Your task to perform on an android device: show emergency info Image 0: 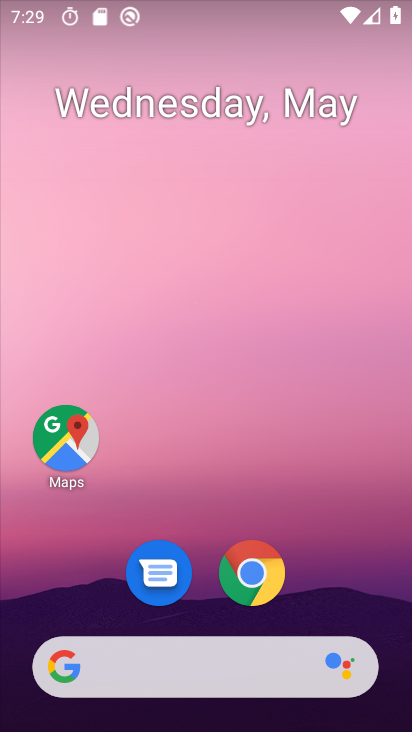
Step 0: drag from (197, 599) to (239, 17)
Your task to perform on an android device: show emergency info Image 1: 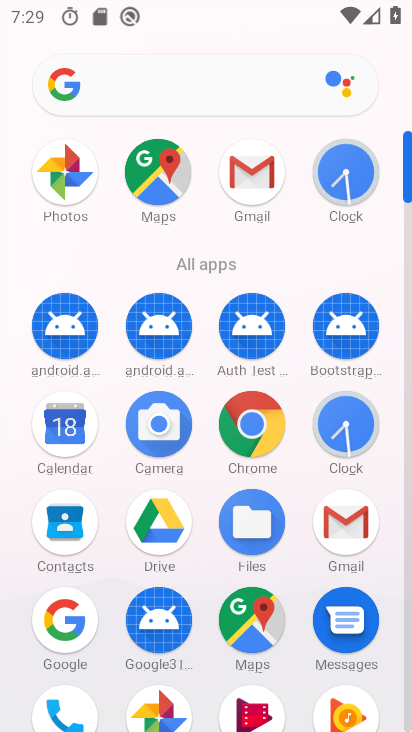
Step 1: drag from (121, 580) to (182, 155)
Your task to perform on an android device: show emergency info Image 2: 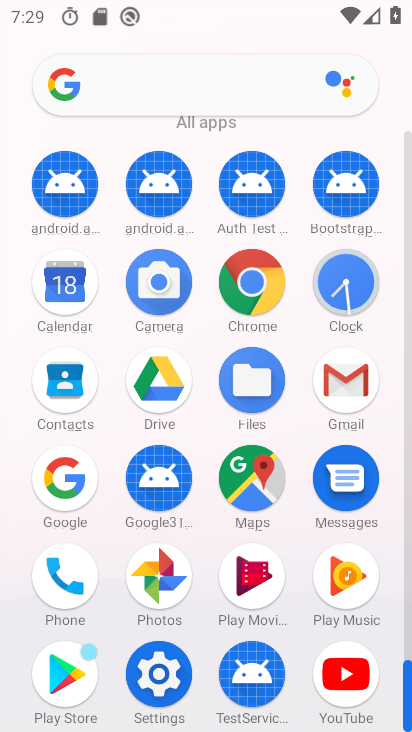
Step 2: click (155, 666)
Your task to perform on an android device: show emergency info Image 3: 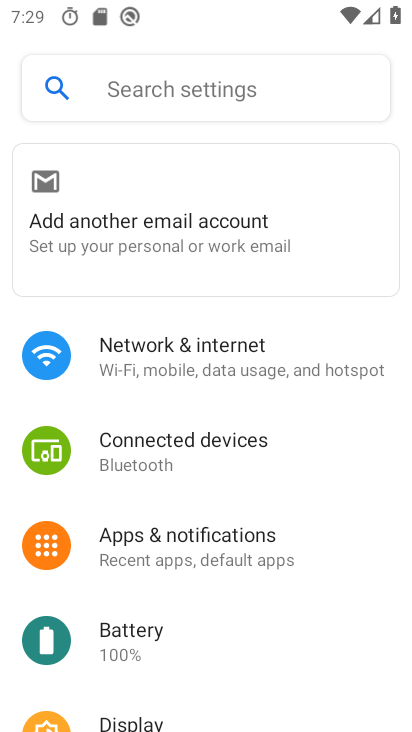
Step 3: drag from (179, 616) to (255, 17)
Your task to perform on an android device: show emergency info Image 4: 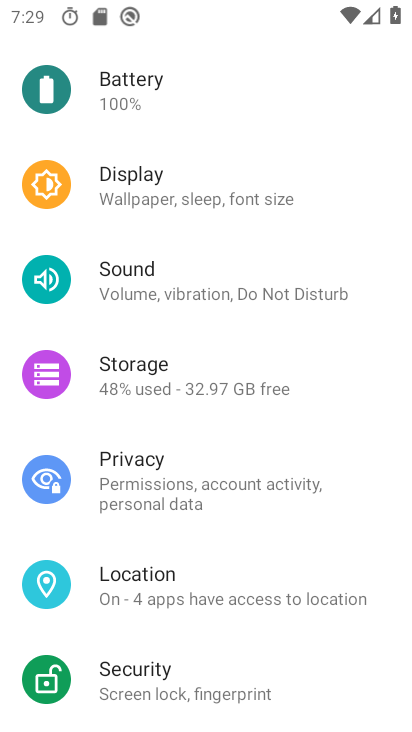
Step 4: drag from (157, 615) to (228, 125)
Your task to perform on an android device: show emergency info Image 5: 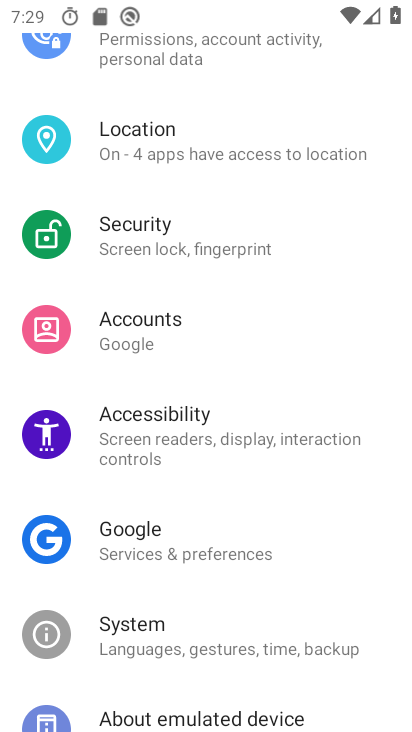
Step 5: drag from (295, 606) to (331, 242)
Your task to perform on an android device: show emergency info Image 6: 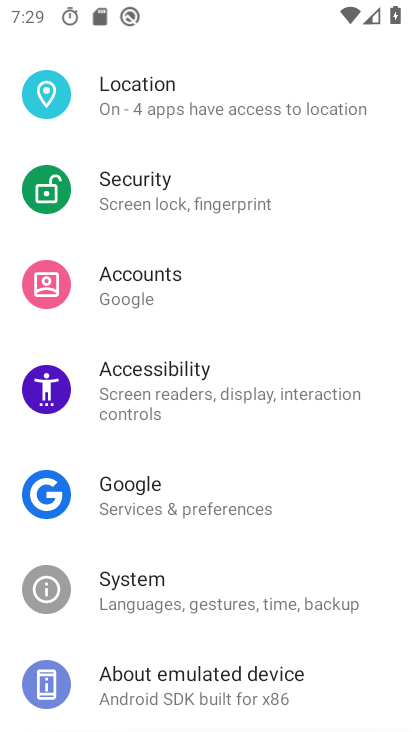
Step 6: click (144, 692)
Your task to perform on an android device: show emergency info Image 7: 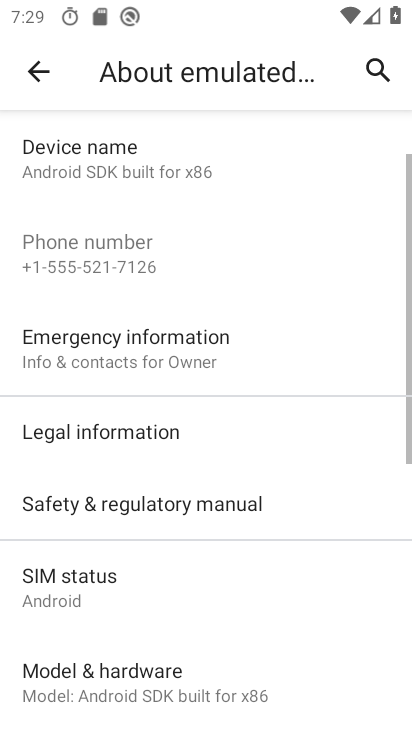
Step 7: click (151, 334)
Your task to perform on an android device: show emergency info Image 8: 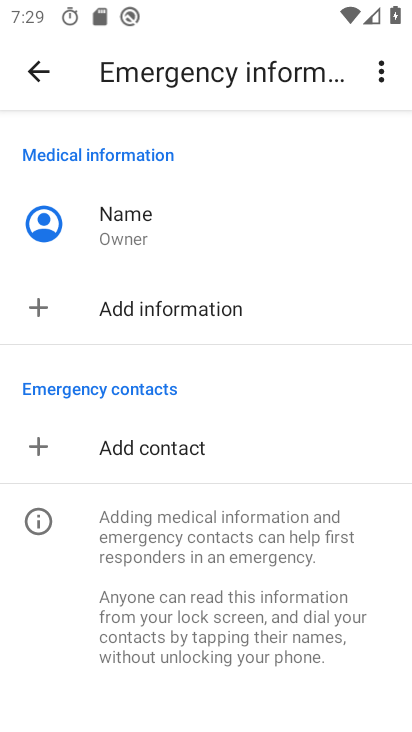
Step 8: task complete